Your task to perform on an android device: open app "VLC for Android" (install if not already installed) Image 0: 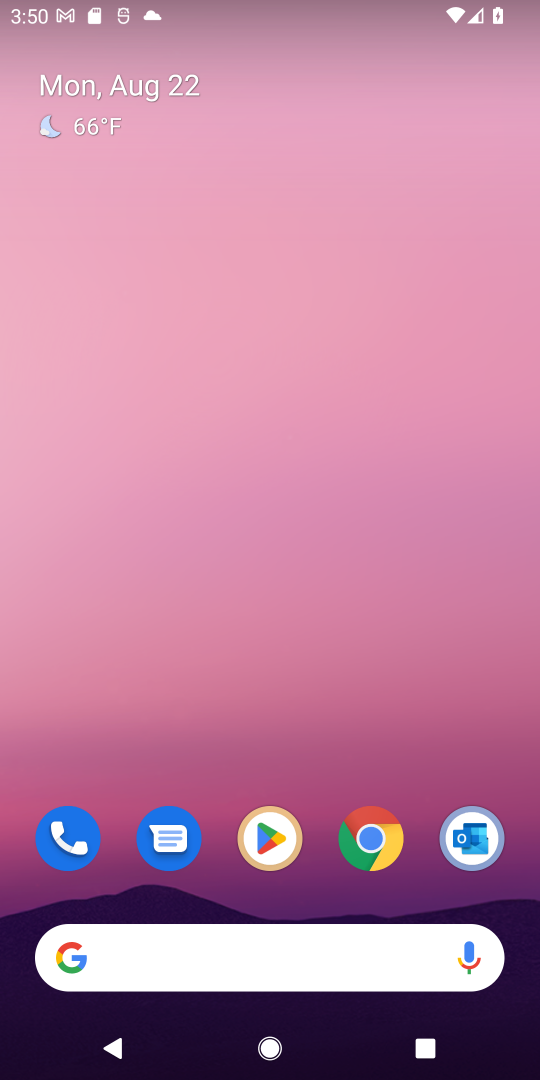
Step 0: click (254, 847)
Your task to perform on an android device: open app "VLC for Android" (install if not already installed) Image 1: 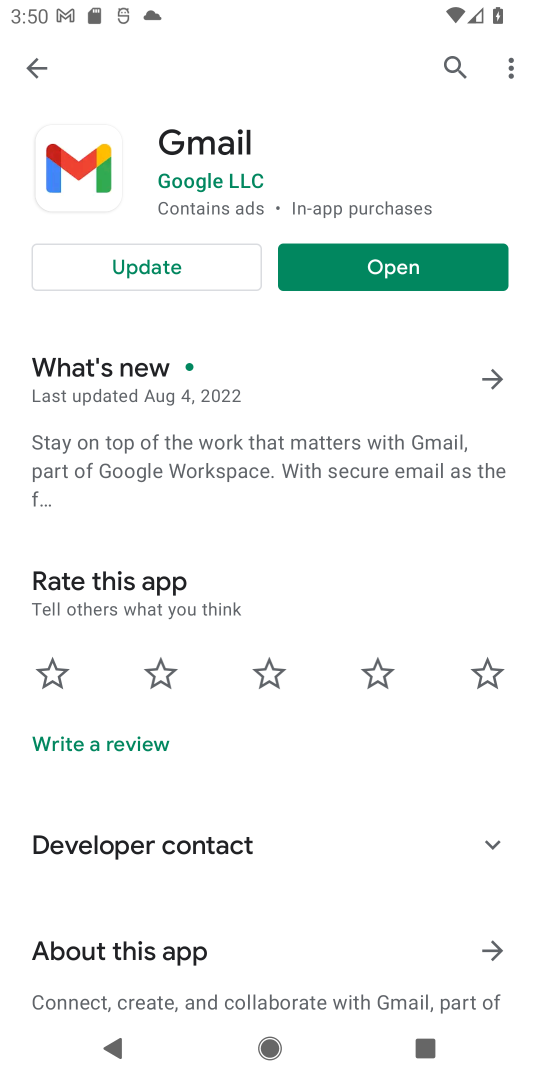
Step 1: click (450, 57)
Your task to perform on an android device: open app "VLC for Android" (install if not already installed) Image 2: 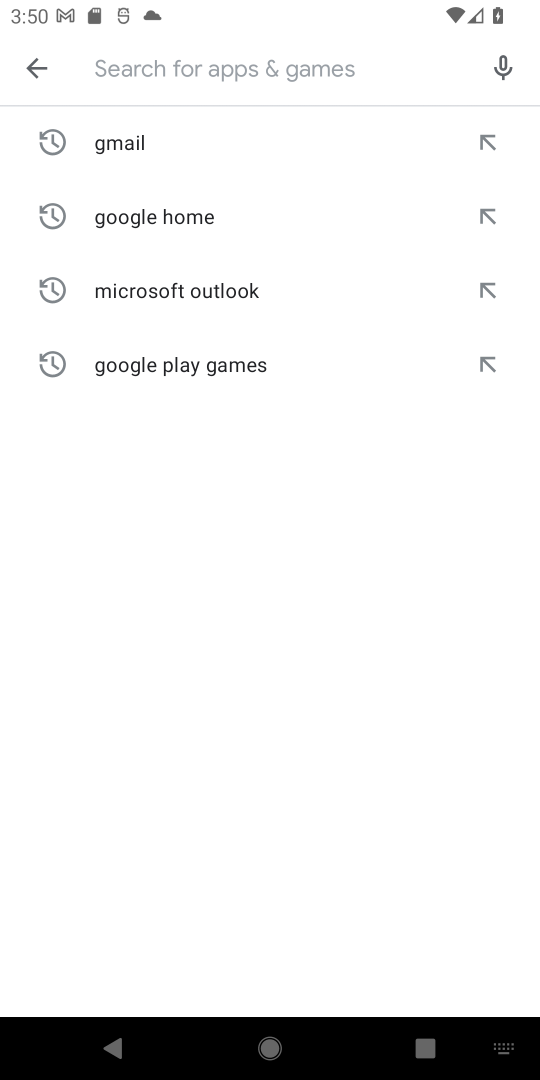
Step 2: click (234, 66)
Your task to perform on an android device: open app "VLC for Android" (install if not already installed) Image 3: 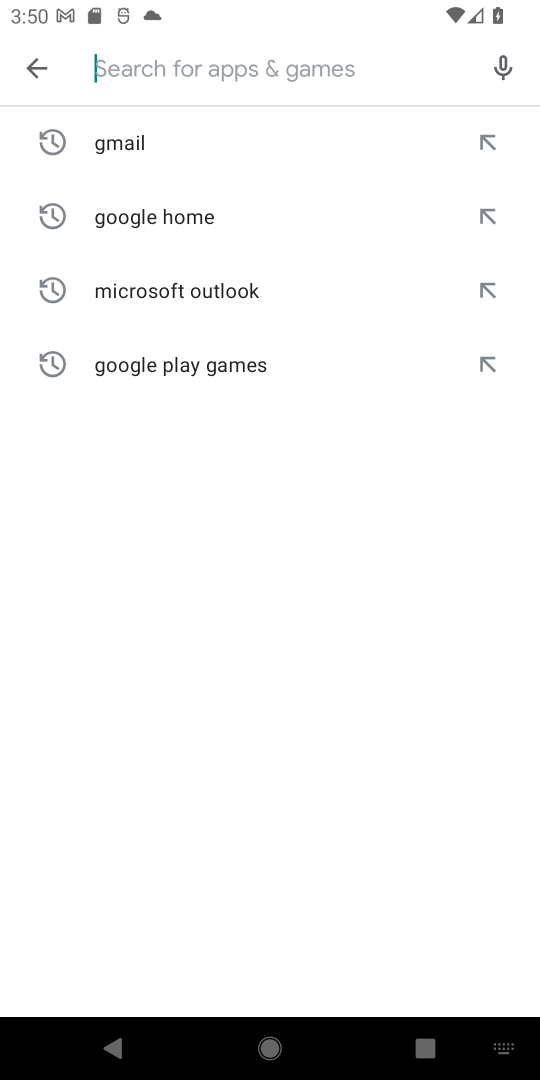
Step 3: type "VLC for Android"
Your task to perform on an android device: open app "VLC for Android" (install if not already installed) Image 4: 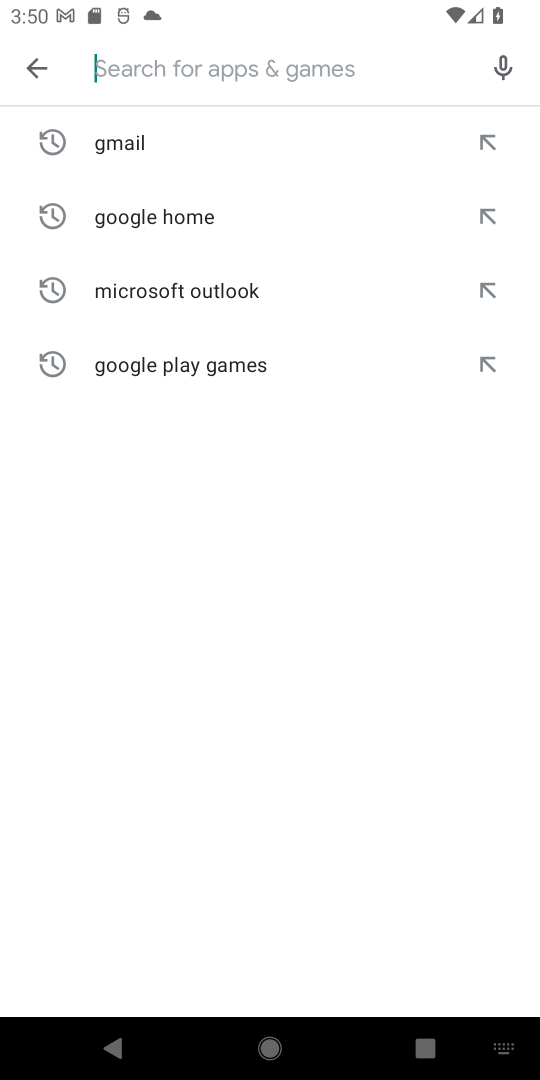
Step 4: click (378, 644)
Your task to perform on an android device: open app "VLC for Android" (install if not already installed) Image 5: 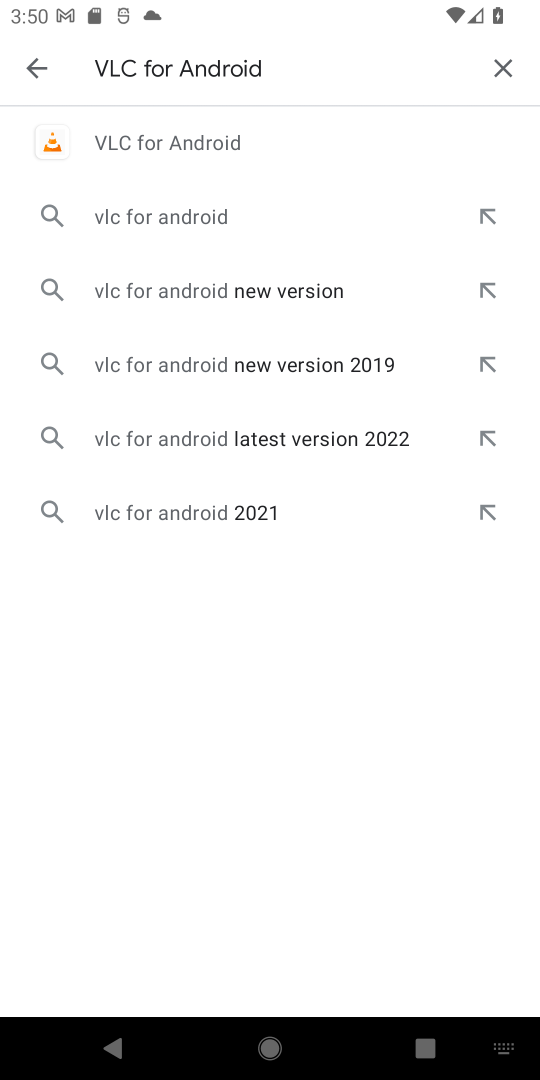
Step 5: click (183, 141)
Your task to perform on an android device: open app "VLC for Android" (install if not already installed) Image 6: 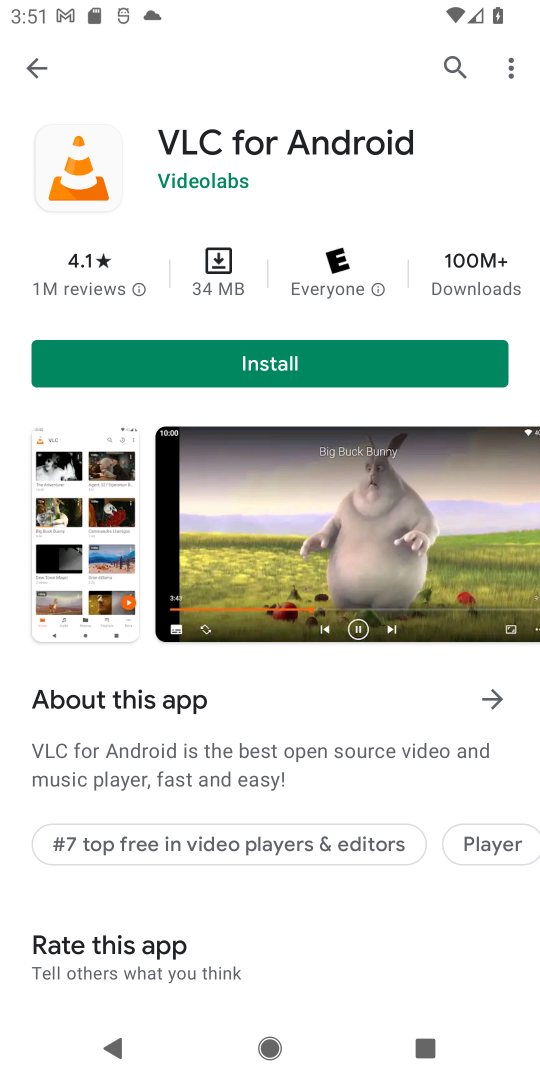
Step 6: click (247, 353)
Your task to perform on an android device: open app "VLC for Android" (install if not already installed) Image 7: 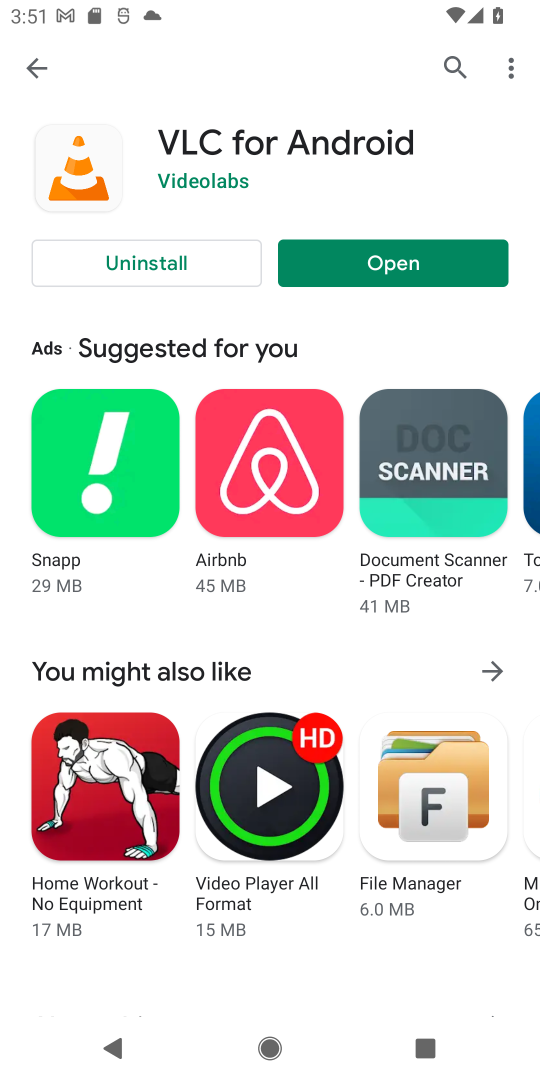
Step 7: click (419, 264)
Your task to perform on an android device: open app "VLC for Android" (install if not already installed) Image 8: 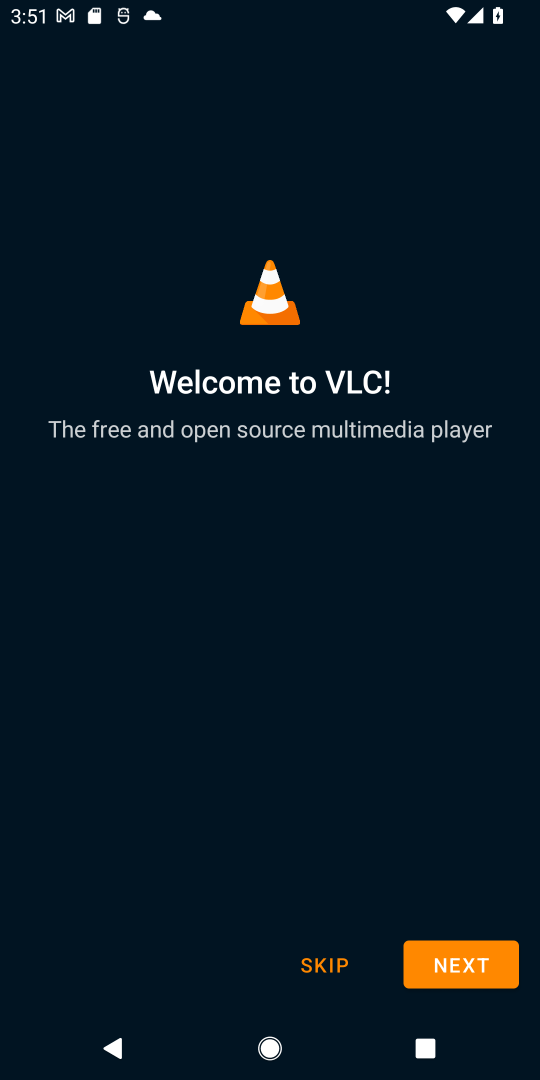
Step 8: task complete